Your task to perform on an android device: Open calendar and show me the fourth week of next month Image 0: 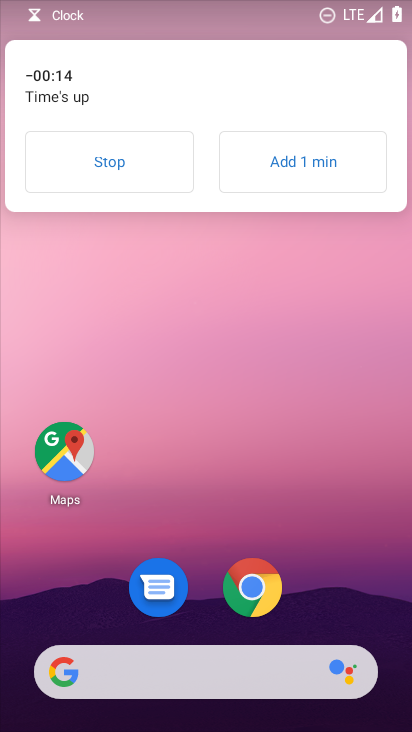
Step 0: click (97, 145)
Your task to perform on an android device: Open calendar and show me the fourth week of next month Image 1: 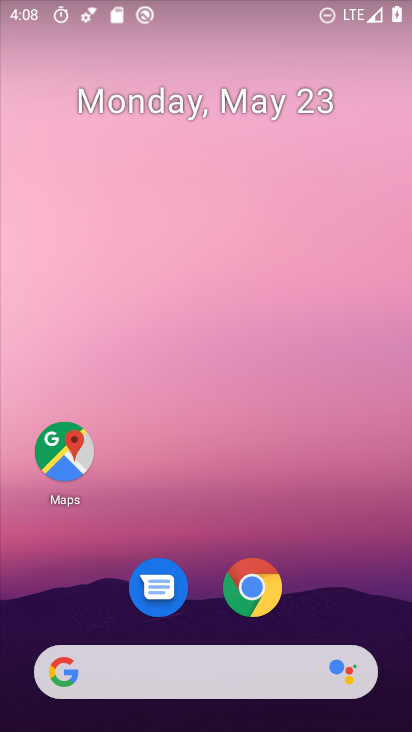
Step 1: drag from (180, 562) to (152, 0)
Your task to perform on an android device: Open calendar and show me the fourth week of next month Image 2: 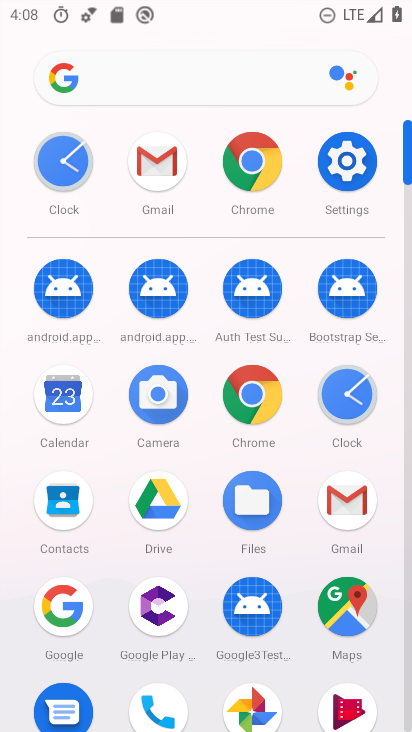
Step 2: click (60, 417)
Your task to perform on an android device: Open calendar and show me the fourth week of next month Image 3: 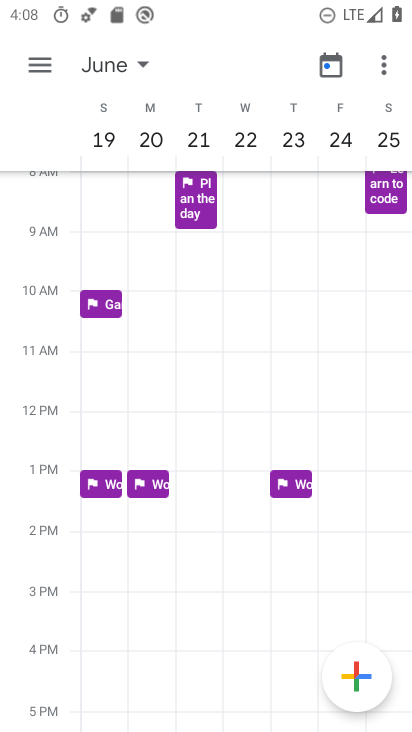
Step 3: task complete